Your task to perform on an android device: Search for sushi restaurants on Maps Image 0: 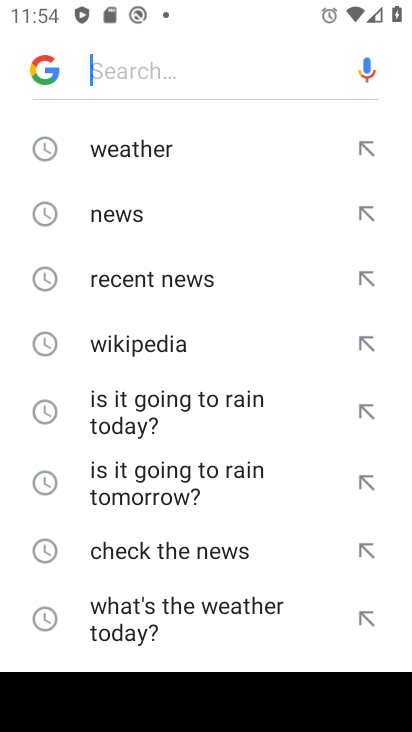
Step 0: press home button
Your task to perform on an android device: Search for sushi restaurants on Maps Image 1: 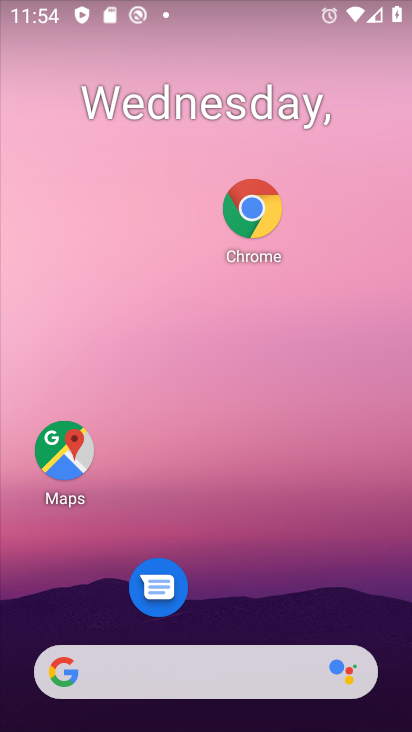
Step 1: click (73, 445)
Your task to perform on an android device: Search for sushi restaurants on Maps Image 2: 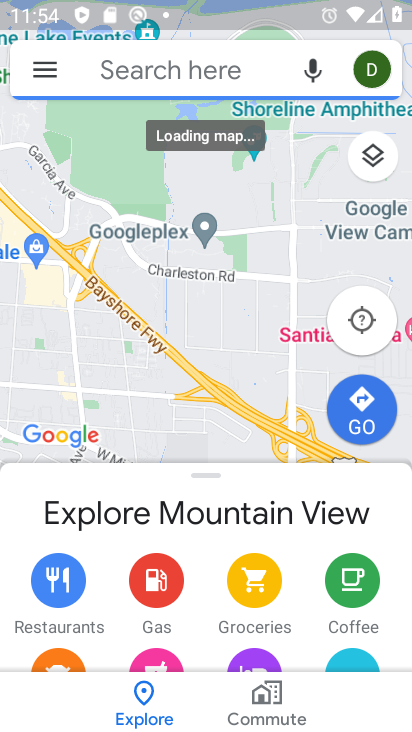
Step 2: click (160, 78)
Your task to perform on an android device: Search for sushi restaurants on Maps Image 3: 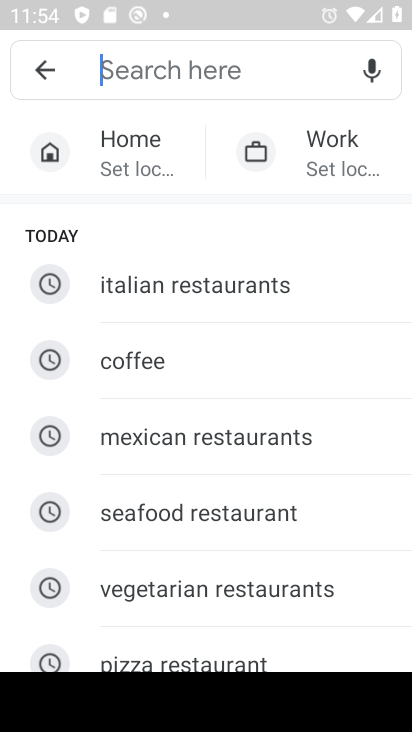
Step 3: drag from (248, 623) to (254, 422)
Your task to perform on an android device: Search for sushi restaurants on Maps Image 4: 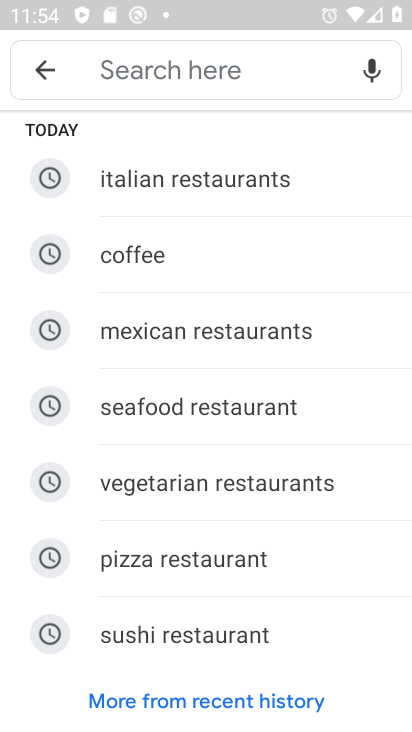
Step 4: click (202, 643)
Your task to perform on an android device: Search for sushi restaurants on Maps Image 5: 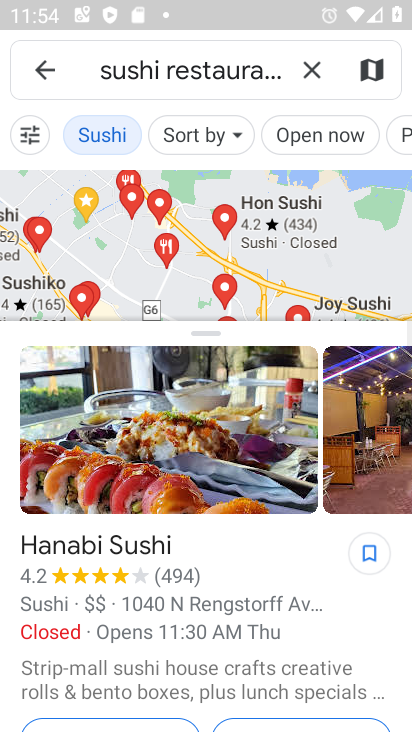
Step 5: task complete